Your task to perform on an android device: Open calendar and show me the first week of next month Image 0: 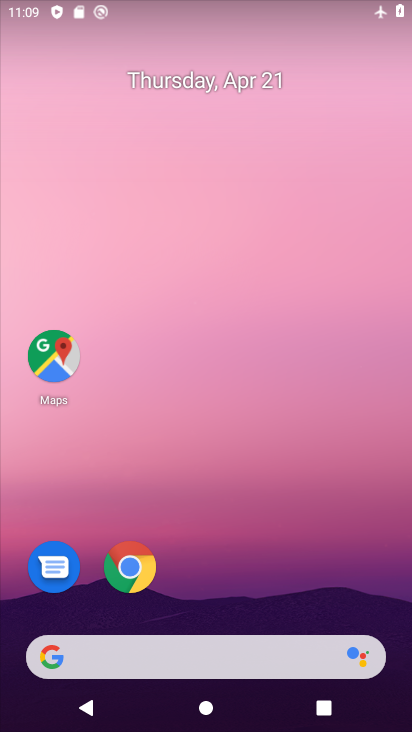
Step 0: drag from (192, 594) to (287, 79)
Your task to perform on an android device: Open calendar and show me the first week of next month Image 1: 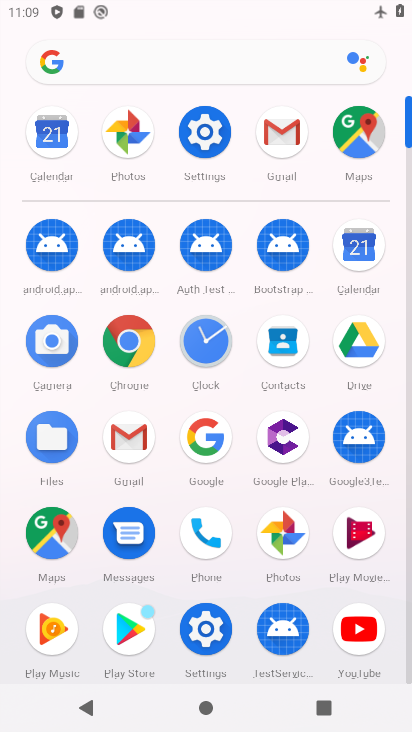
Step 1: click (285, 356)
Your task to perform on an android device: Open calendar and show me the first week of next month Image 2: 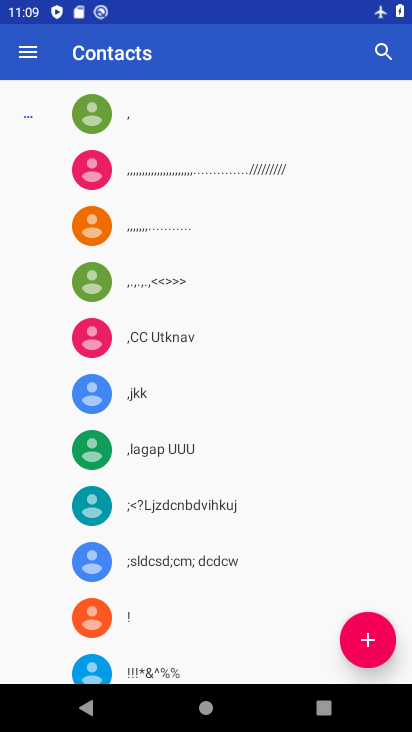
Step 2: press home button
Your task to perform on an android device: Open calendar and show me the first week of next month Image 3: 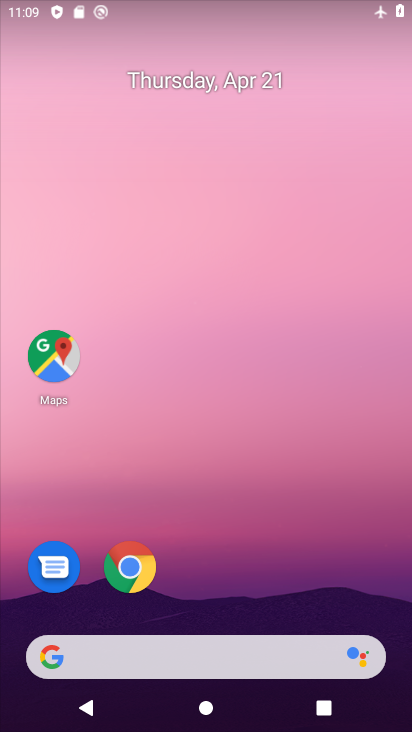
Step 3: drag from (234, 554) to (279, 16)
Your task to perform on an android device: Open calendar and show me the first week of next month Image 4: 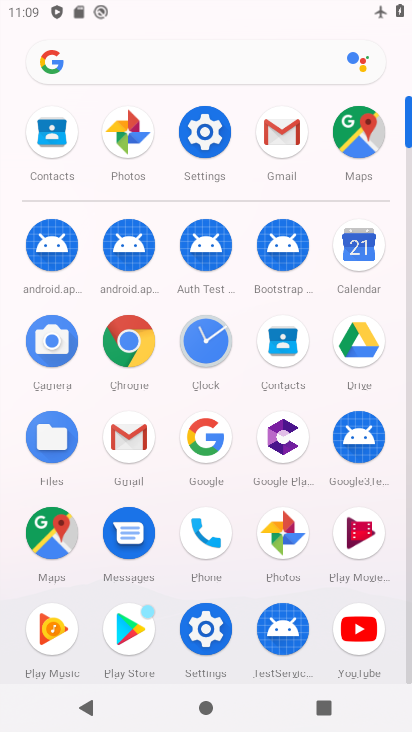
Step 4: click (365, 252)
Your task to perform on an android device: Open calendar and show me the first week of next month Image 5: 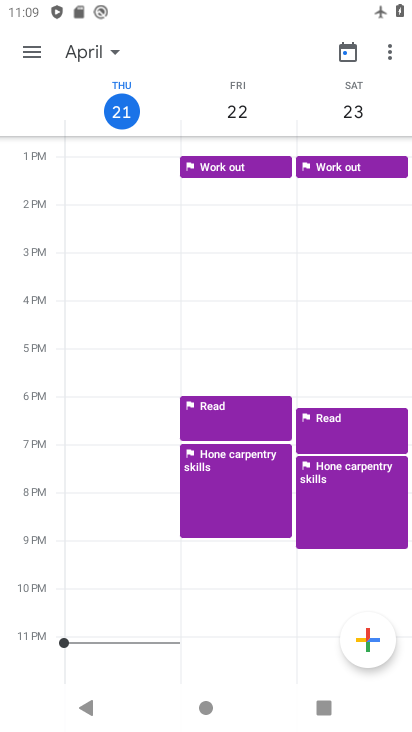
Step 5: click (43, 60)
Your task to perform on an android device: Open calendar and show me the first week of next month Image 6: 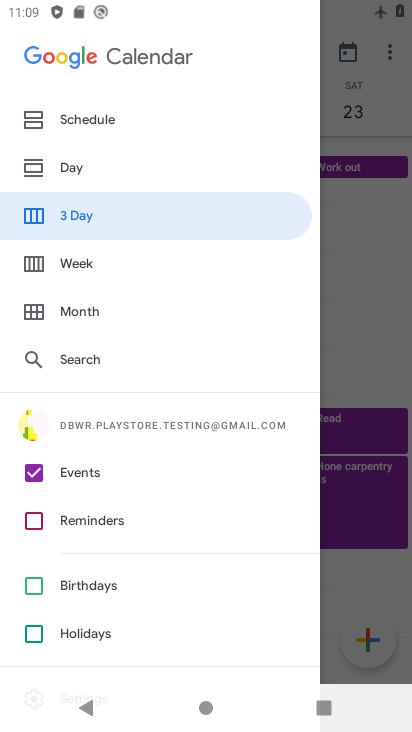
Step 6: click (95, 257)
Your task to perform on an android device: Open calendar and show me the first week of next month Image 7: 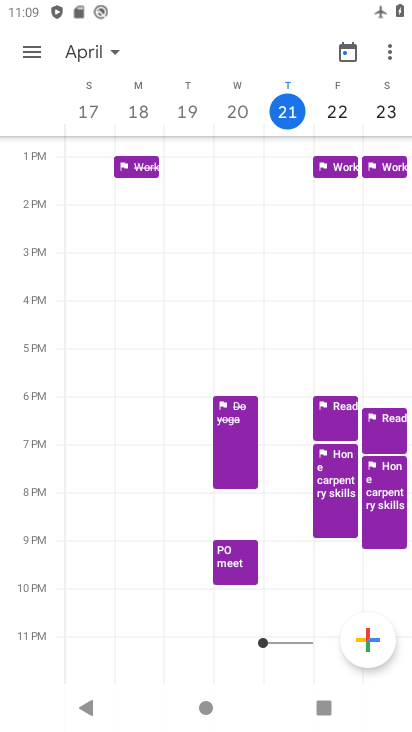
Step 7: task complete